Your task to perform on an android device: install app "File Manager" Image 0: 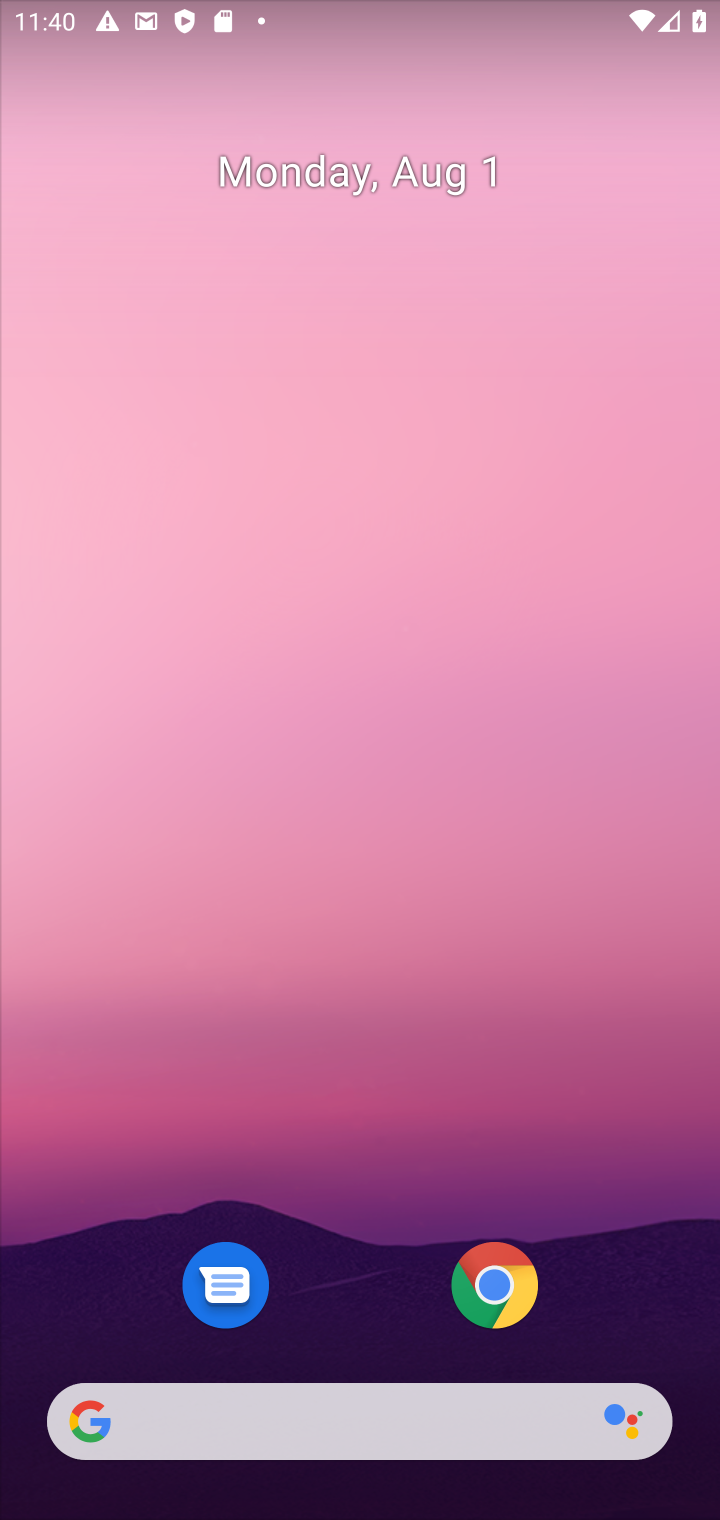
Step 0: click (316, 723)
Your task to perform on an android device: install app "File Manager" Image 1: 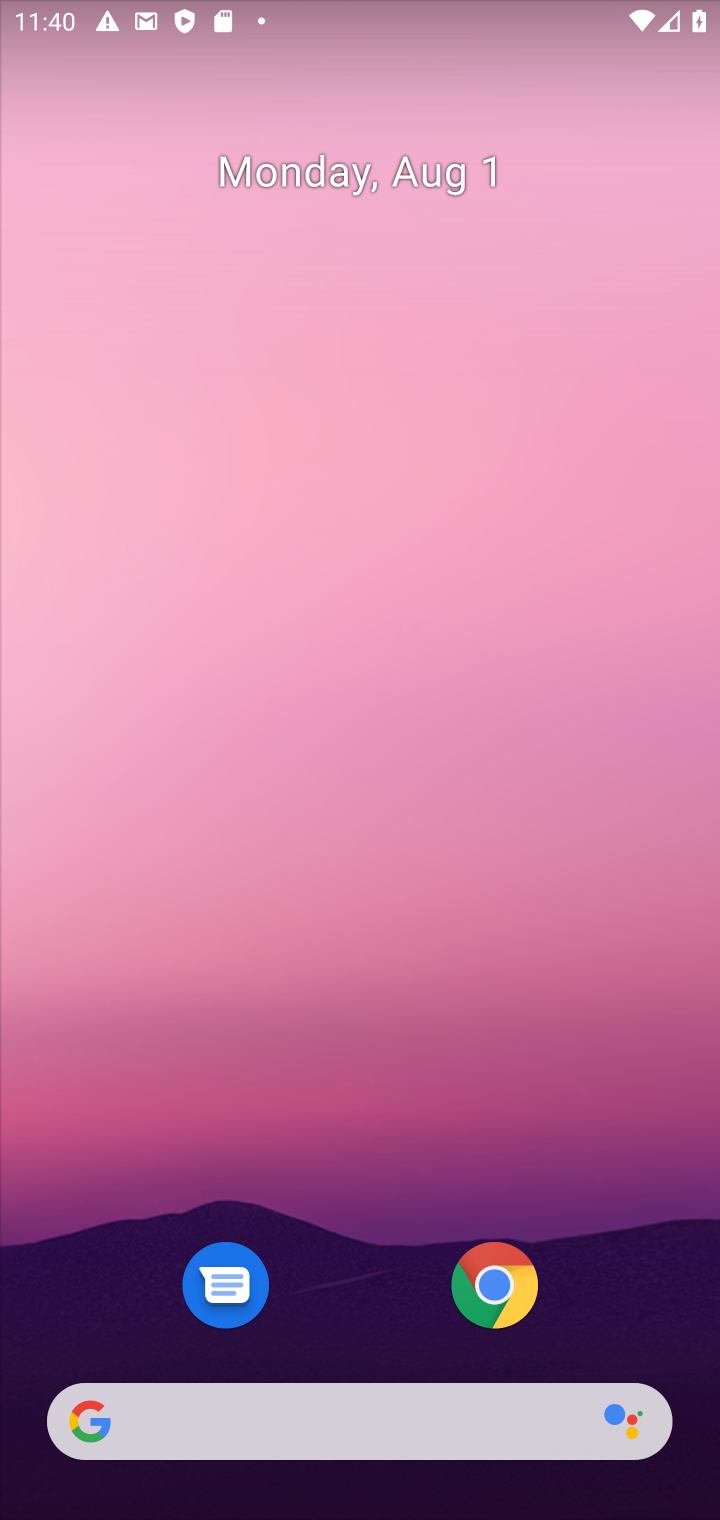
Step 1: drag from (388, 347) to (386, 91)
Your task to perform on an android device: install app "File Manager" Image 2: 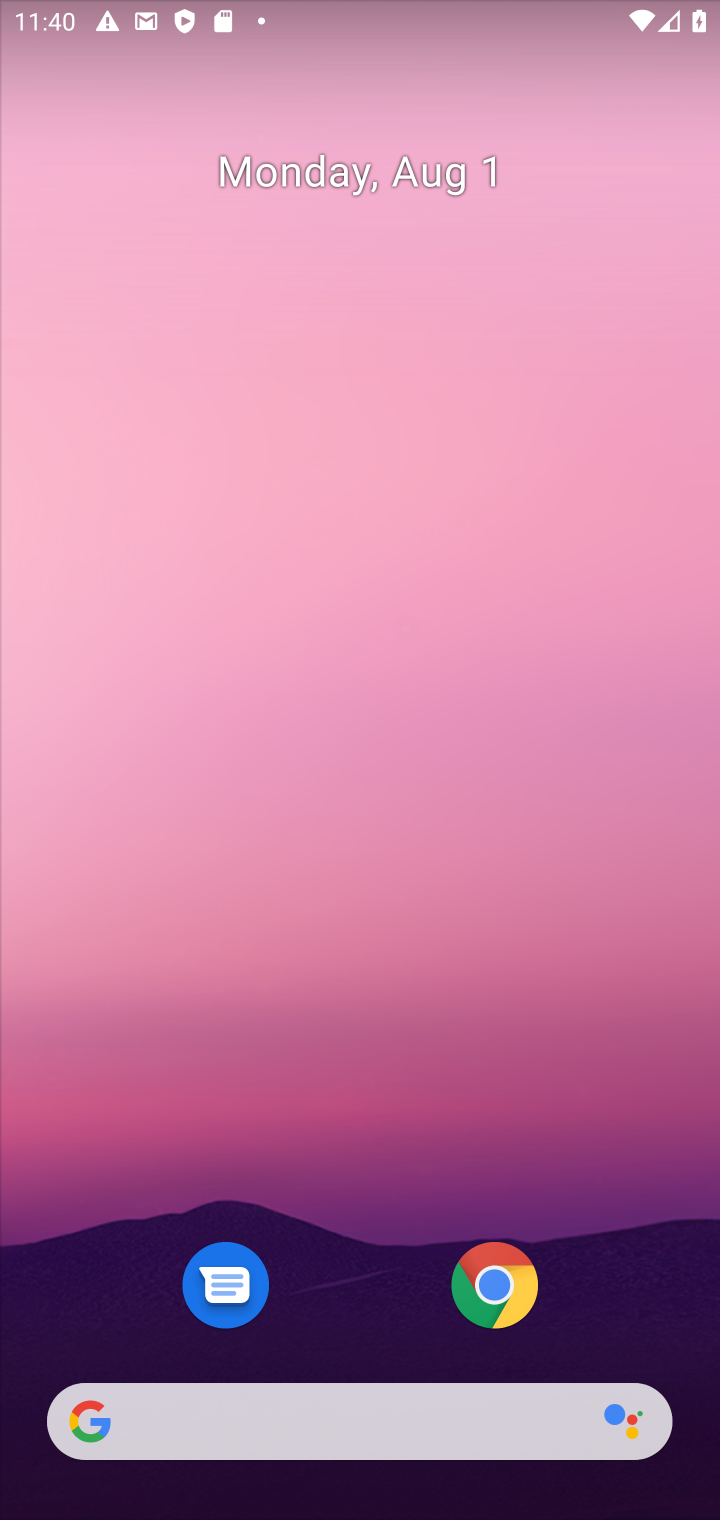
Step 2: drag from (316, 1104) to (277, 340)
Your task to perform on an android device: install app "File Manager" Image 3: 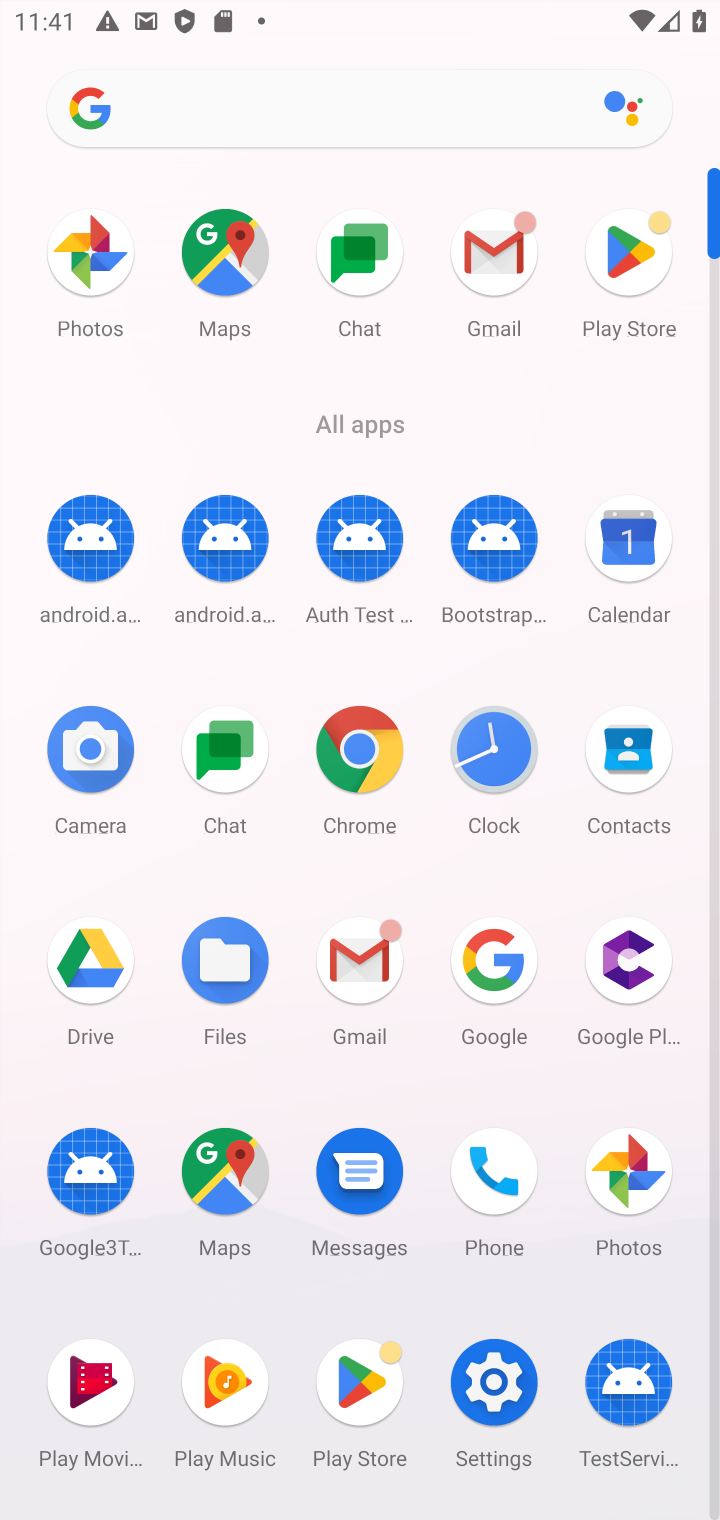
Step 3: click (329, 1397)
Your task to perform on an android device: install app "File Manager" Image 4: 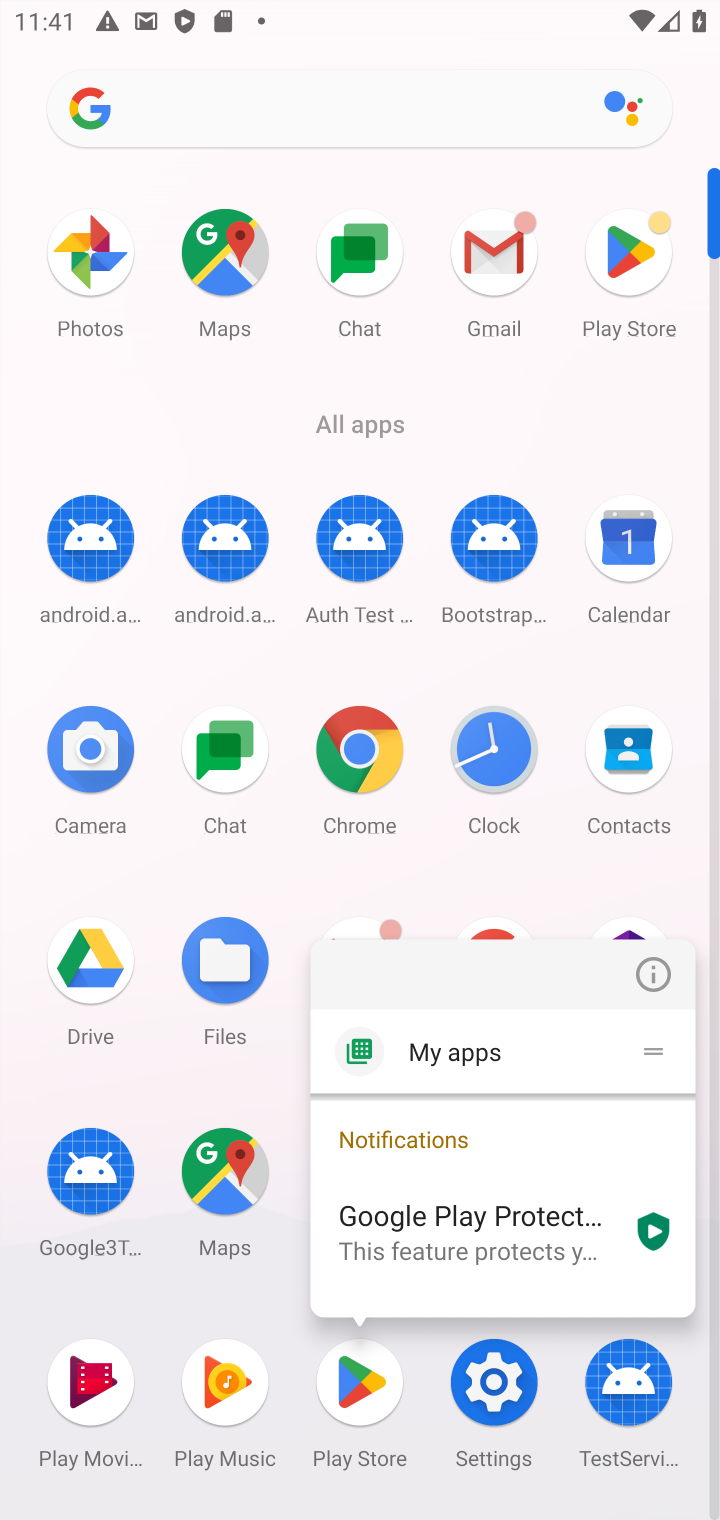
Step 4: click (329, 1397)
Your task to perform on an android device: install app "File Manager" Image 5: 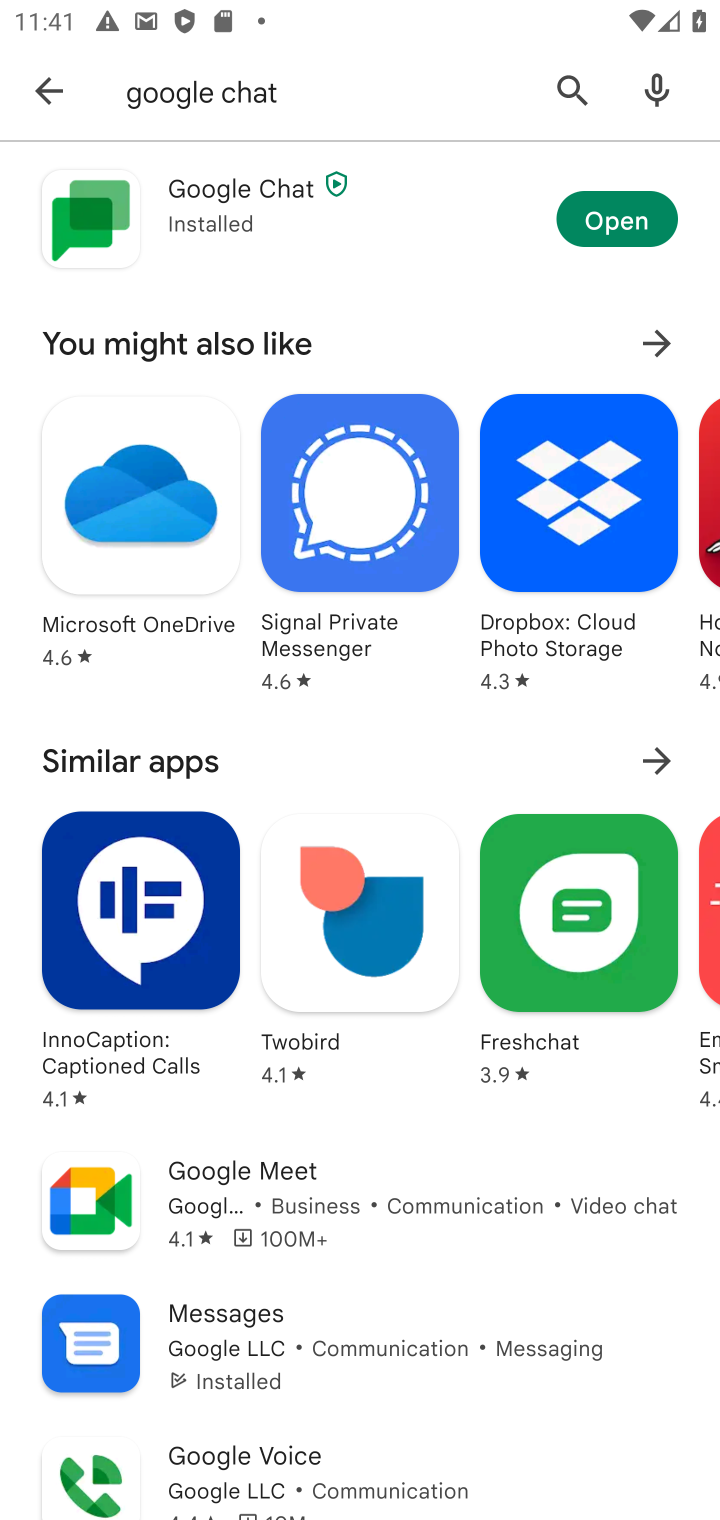
Step 5: click (569, 92)
Your task to perform on an android device: install app "File Manager" Image 6: 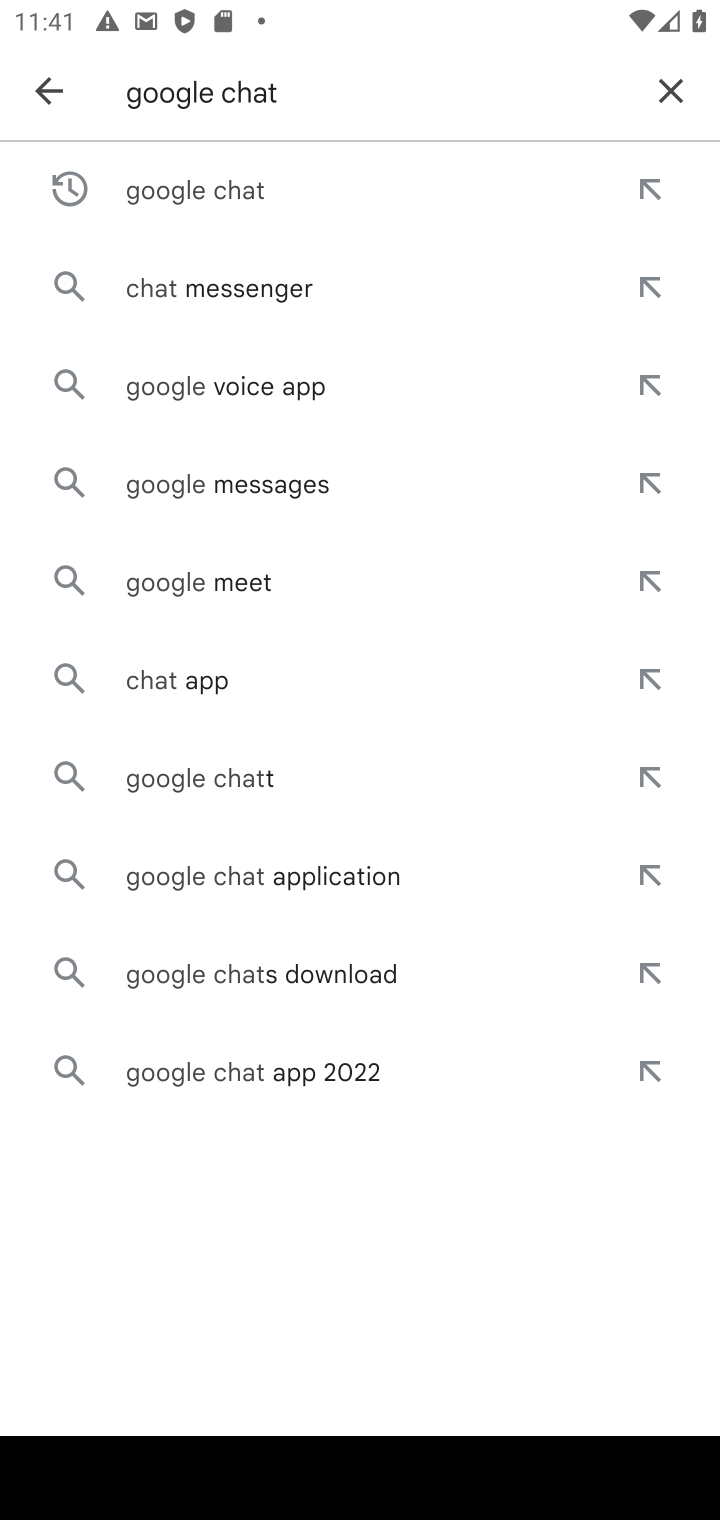
Step 6: click (662, 89)
Your task to perform on an android device: install app "File Manager" Image 7: 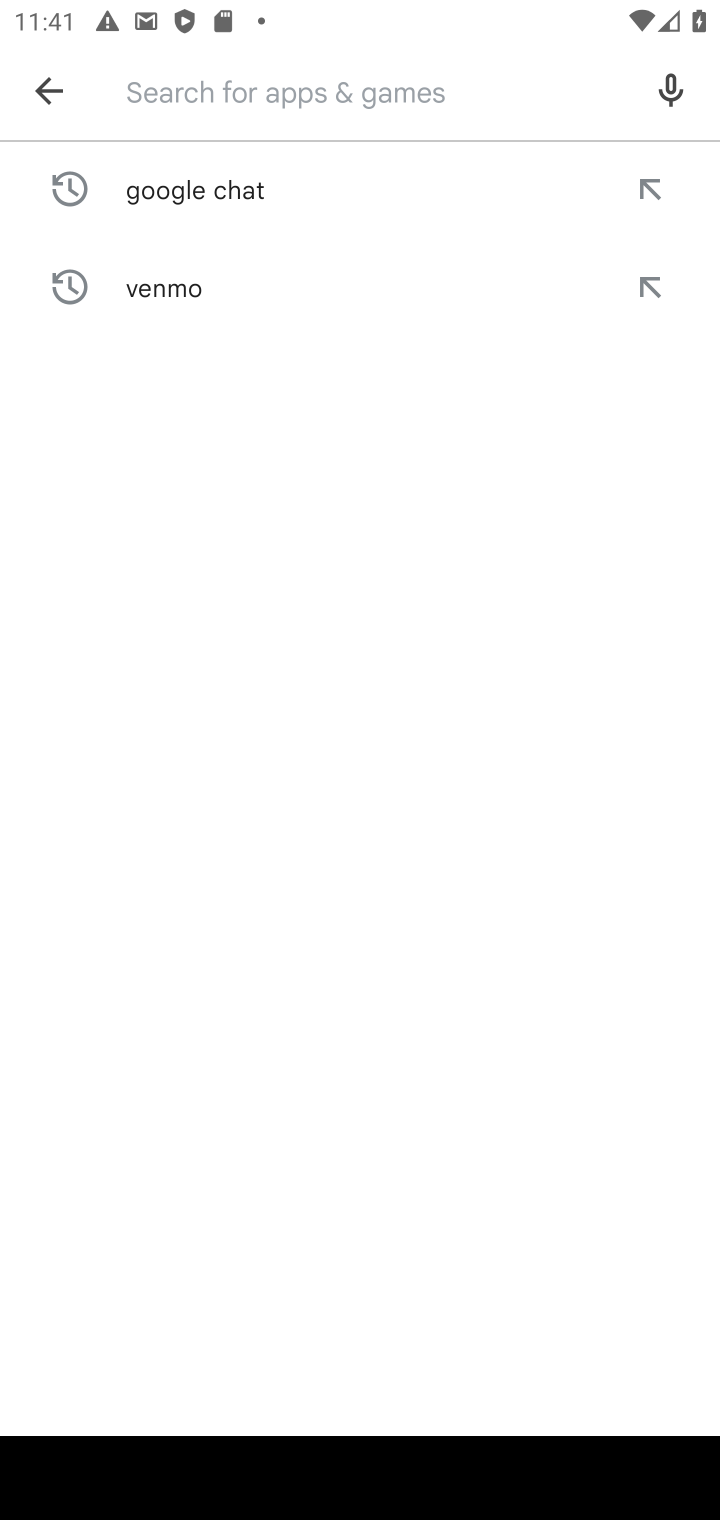
Step 7: type "File Manager"
Your task to perform on an android device: install app "File Manager" Image 8: 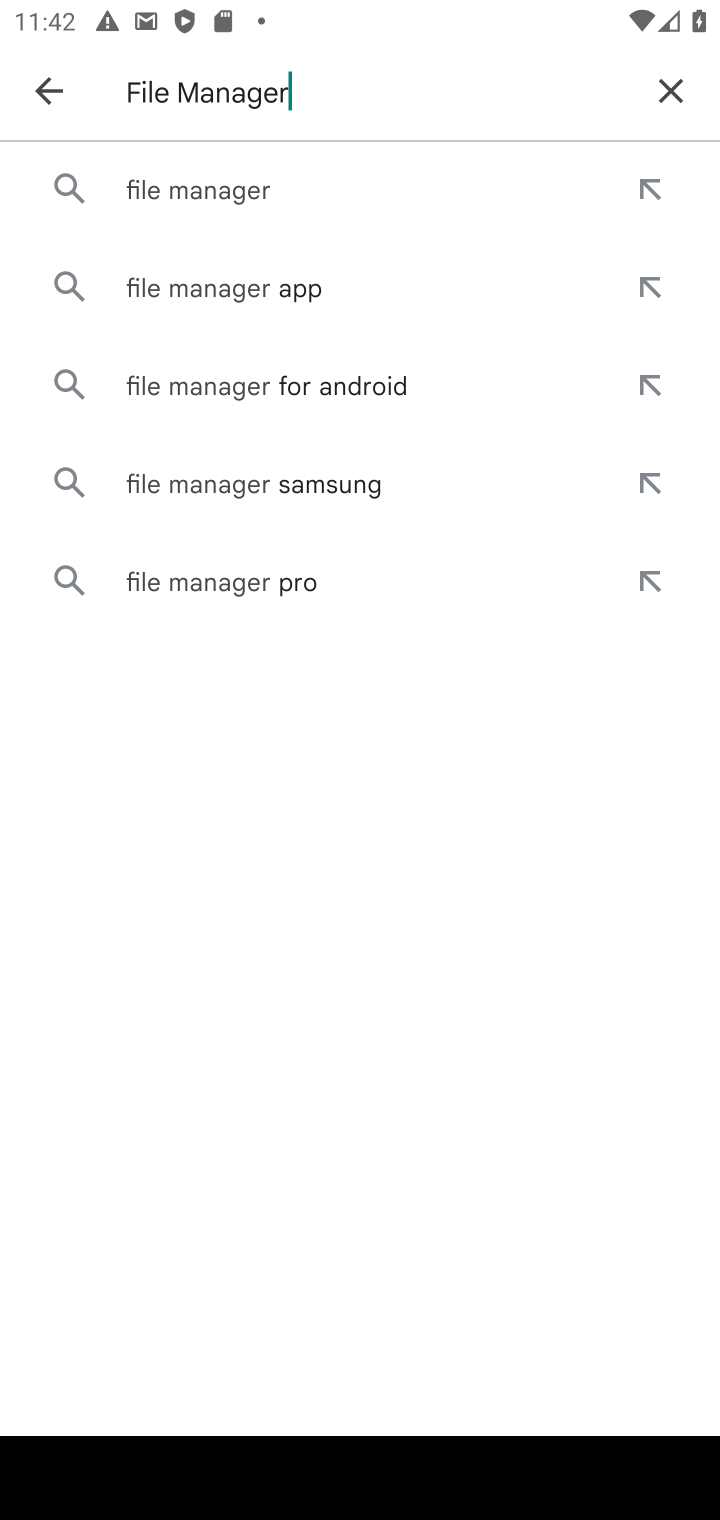
Step 8: click (219, 185)
Your task to perform on an android device: install app "File Manager" Image 9: 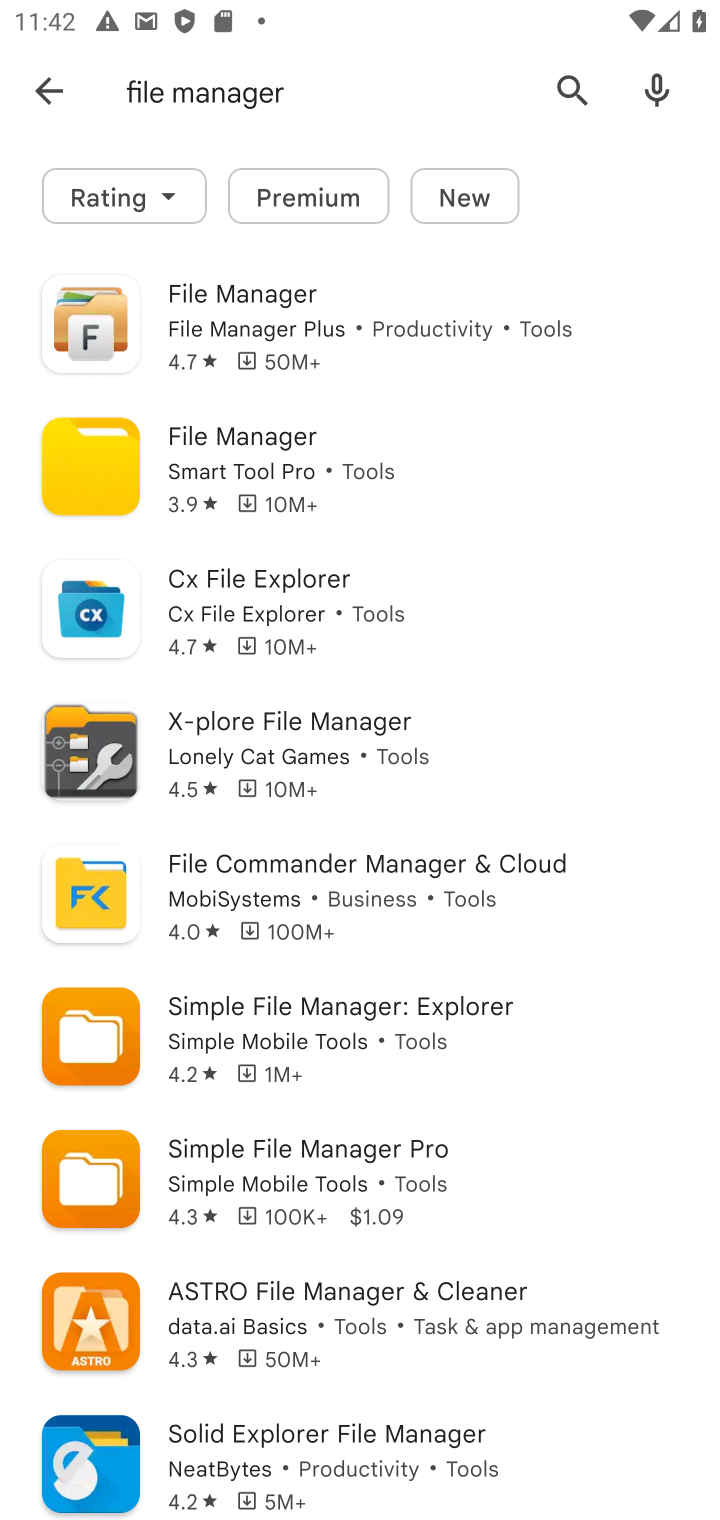
Step 9: click (377, 475)
Your task to perform on an android device: install app "File Manager" Image 10: 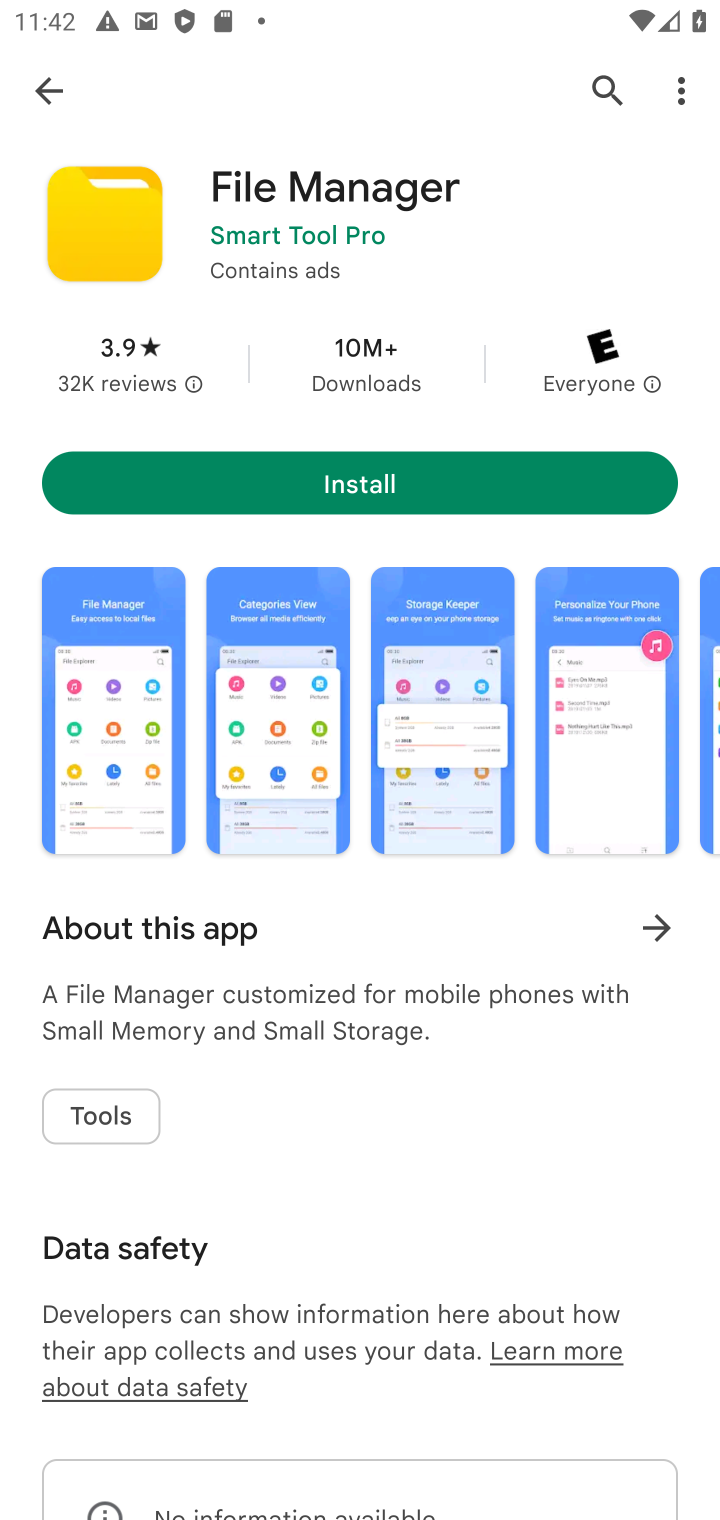
Step 10: click (507, 459)
Your task to perform on an android device: install app "File Manager" Image 11: 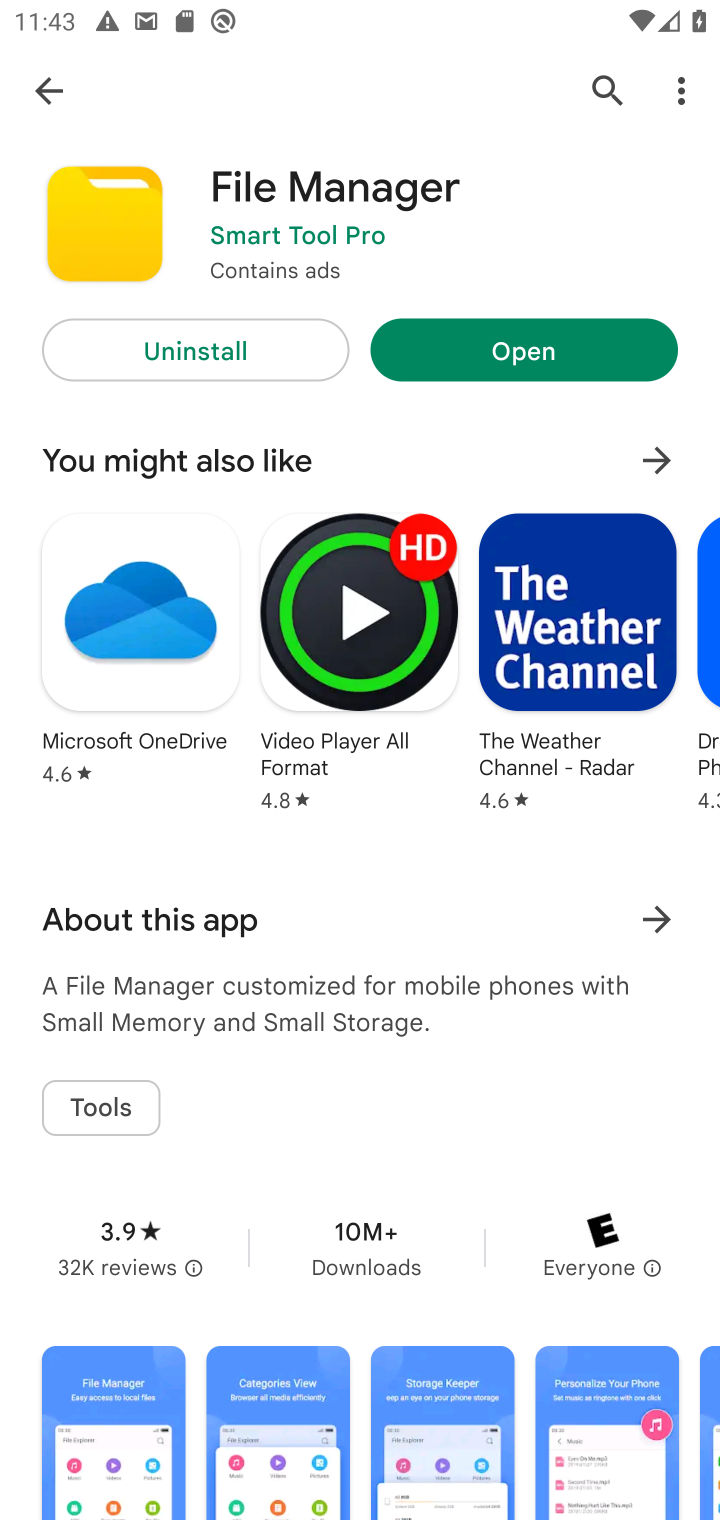
Step 11: task complete